Your task to perform on an android device: change notifications settings Image 0: 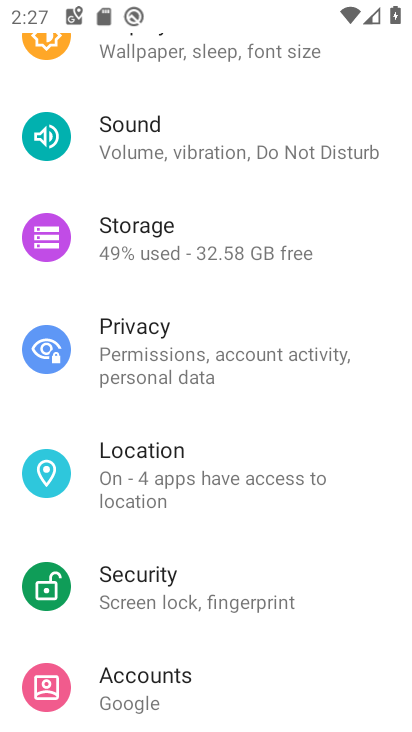
Step 0: drag from (376, 602) to (122, 123)
Your task to perform on an android device: change notifications settings Image 1: 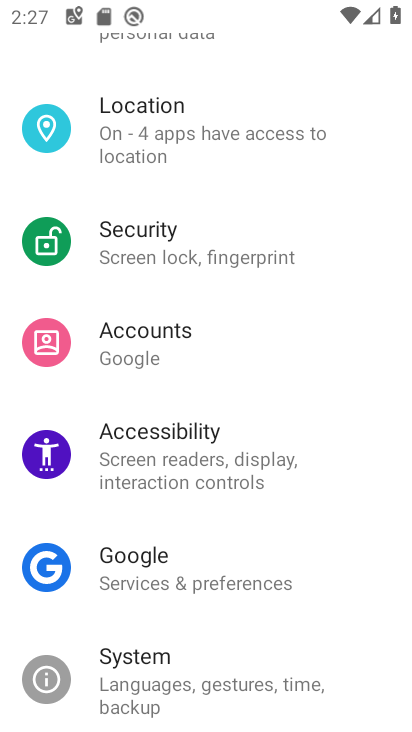
Step 1: drag from (163, 216) to (110, 579)
Your task to perform on an android device: change notifications settings Image 2: 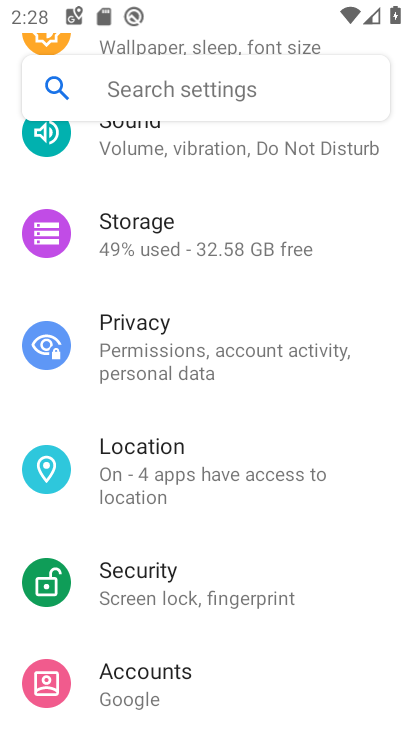
Step 2: drag from (156, 252) to (168, 598)
Your task to perform on an android device: change notifications settings Image 3: 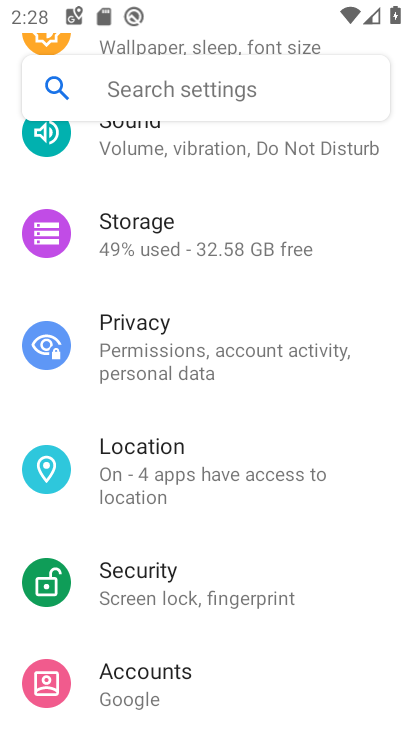
Step 3: drag from (181, 260) to (132, 578)
Your task to perform on an android device: change notifications settings Image 4: 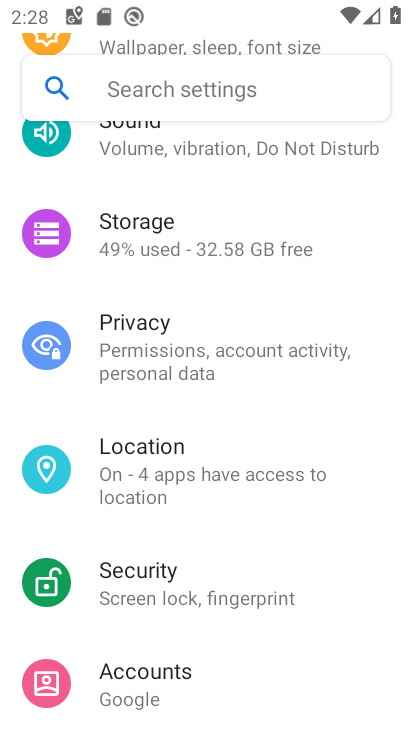
Step 4: drag from (216, 270) to (214, 529)
Your task to perform on an android device: change notifications settings Image 5: 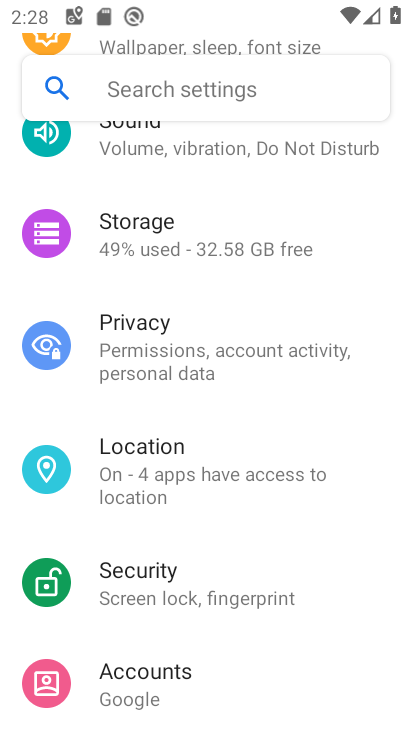
Step 5: drag from (152, 238) to (157, 694)
Your task to perform on an android device: change notifications settings Image 6: 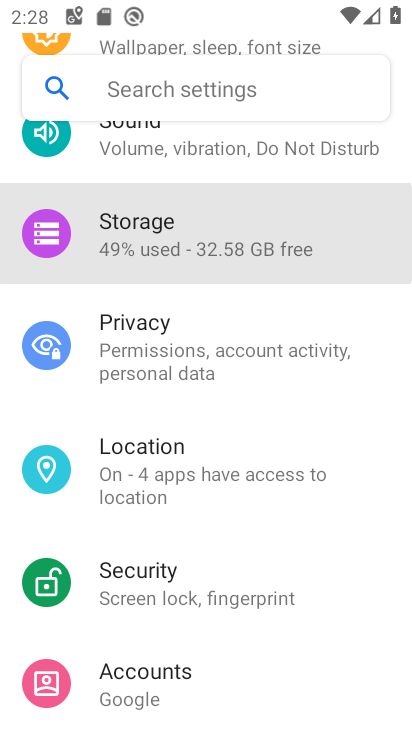
Step 6: drag from (190, 343) to (205, 727)
Your task to perform on an android device: change notifications settings Image 7: 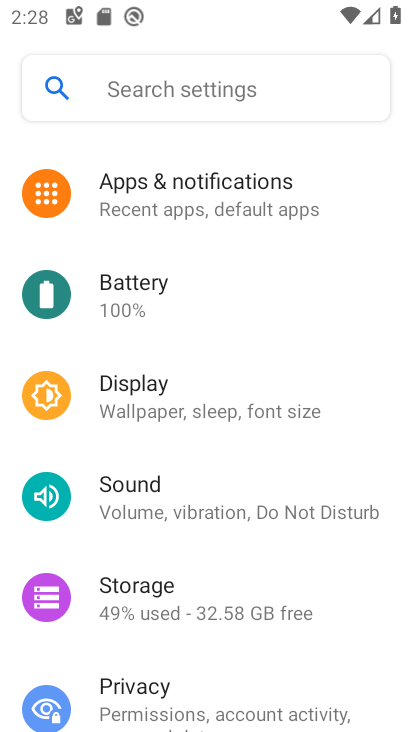
Step 7: drag from (202, 386) to (219, 657)
Your task to perform on an android device: change notifications settings Image 8: 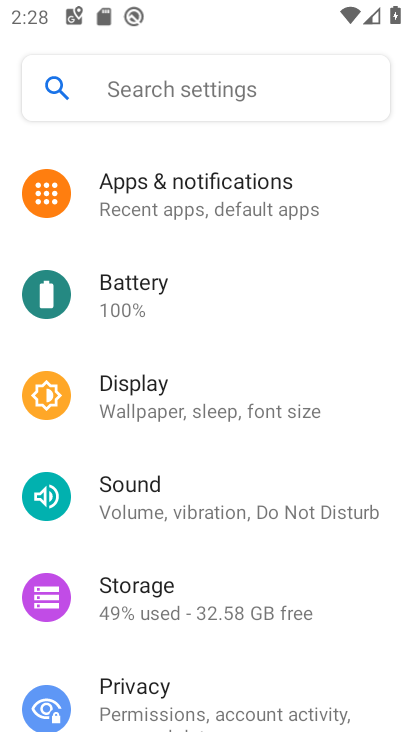
Step 8: drag from (209, 287) to (187, 567)
Your task to perform on an android device: change notifications settings Image 9: 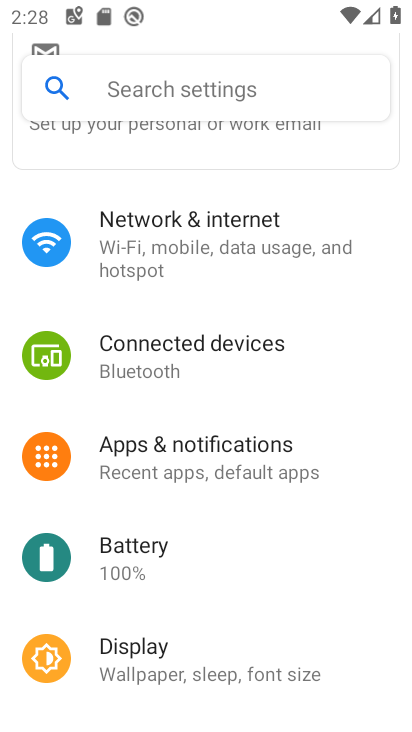
Step 9: drag from (178, 454) to (173, 489)
Your task to perform on an android device: change notifications settings Image 10: 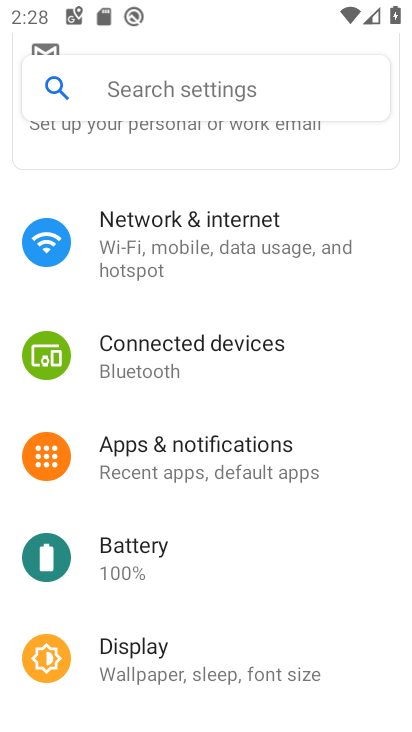
Step 10: click (173, 456)
Your task to perform on an android device: change notifications settings Image 11: 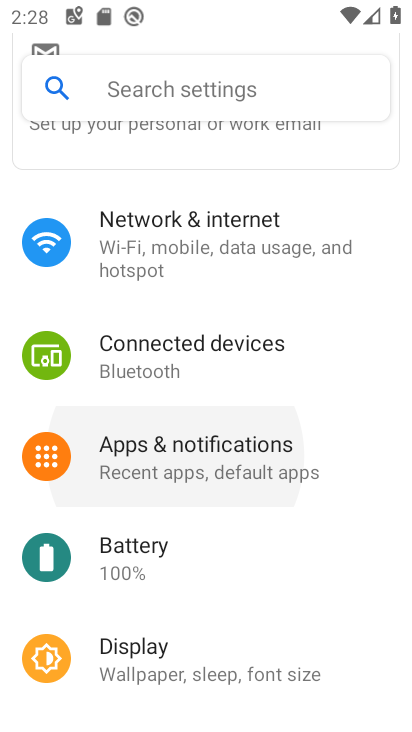
Step 11: click (176, 456)
Your task to perform on an android device: change notifications settings Image 12: 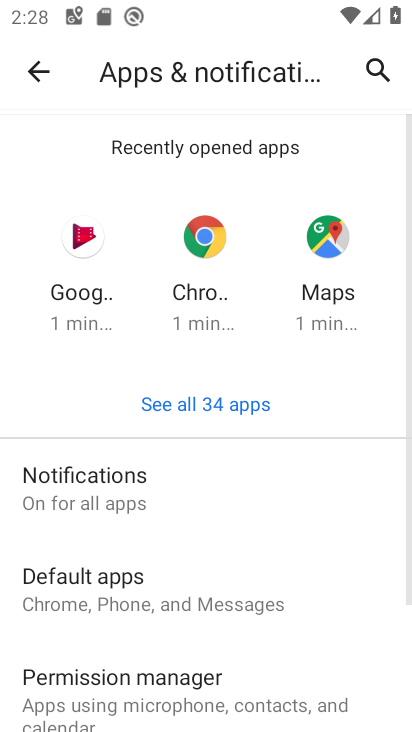
Step 12: click (163, 466)
Your task to perform on an android device: change notifications settings Image 13: 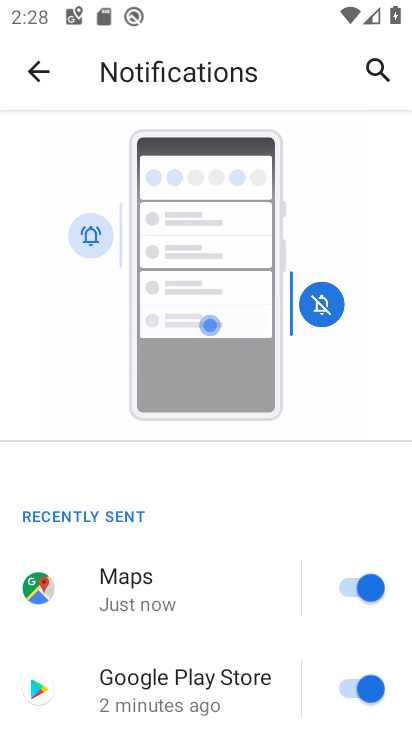
Step 13: drag from (172, 628) to (205, 185)
Your task to perform on an android device: change notifications settings Image 14: 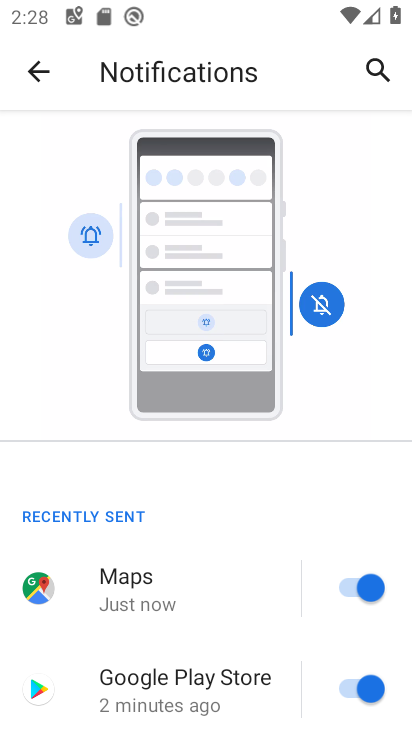
Step 14: drag from (183, 543) to (258, 152)
Your task to perform on an android device: change notifications settings Image 15: 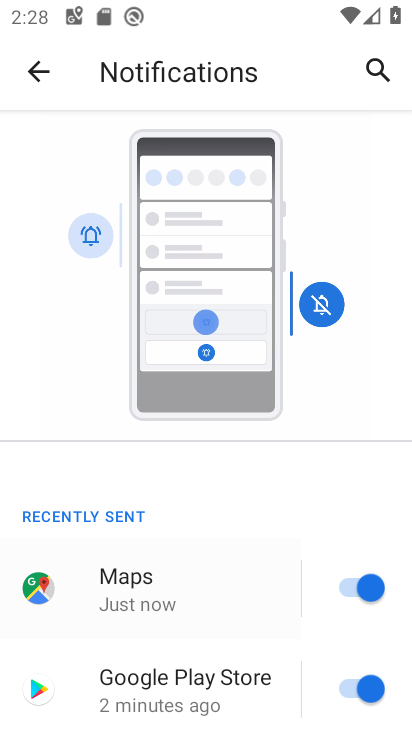
Step 15: drag from (230, 525) to (241, 73)
Your task to perform on an android device: change notifications settings Image 16: 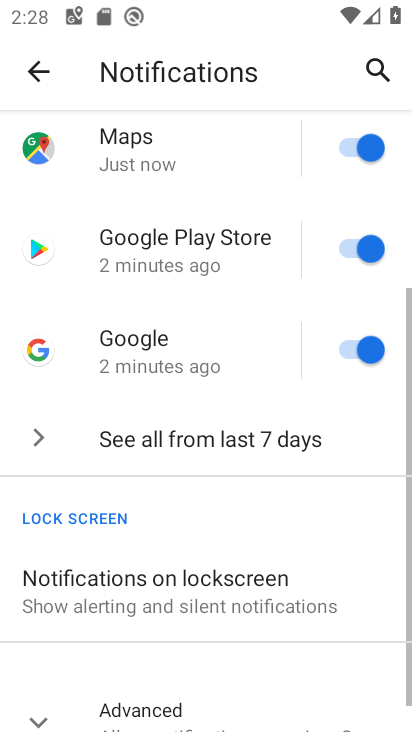
Step 16: drag from (173, 531) to (326, 38)
Your task to perform on an android device: change notifications settings Image 17: 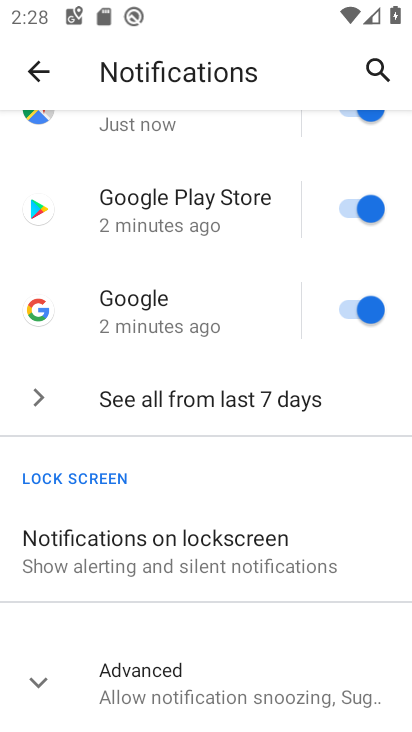
Step 17: drag from (200, 595) to (210, 199)
Your task to perform on an android device: change notifications settings Image 18: 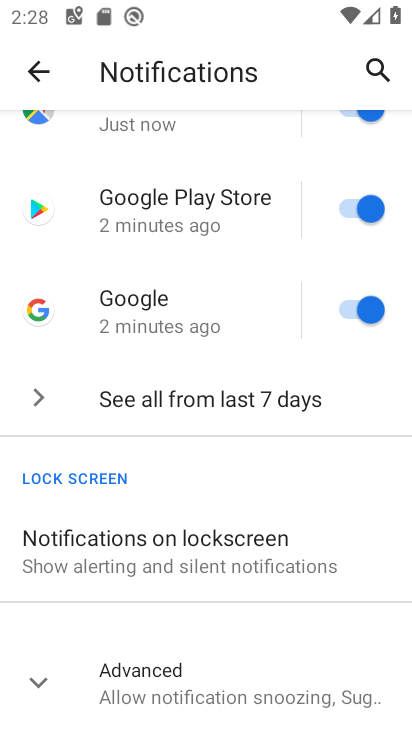
Step 18: drag from (112, 608) to (128, 16)
Your task to perform on an android device: change notifications settings Image 19: 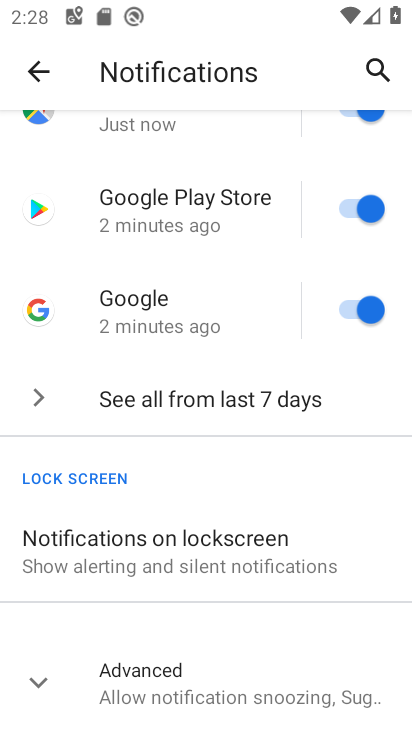
Step 19: click (141, 697)
Your task to perform on an android device: change notifications settings Image 20: 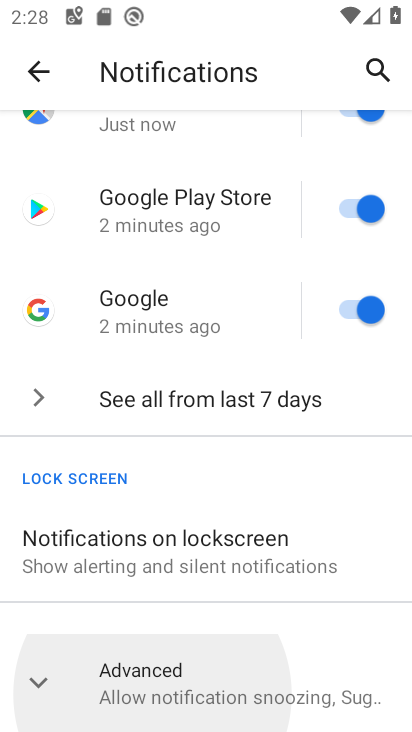
Step 20: click (132, 697)
Your task to perform on an android device: change notifications settings Image 21: 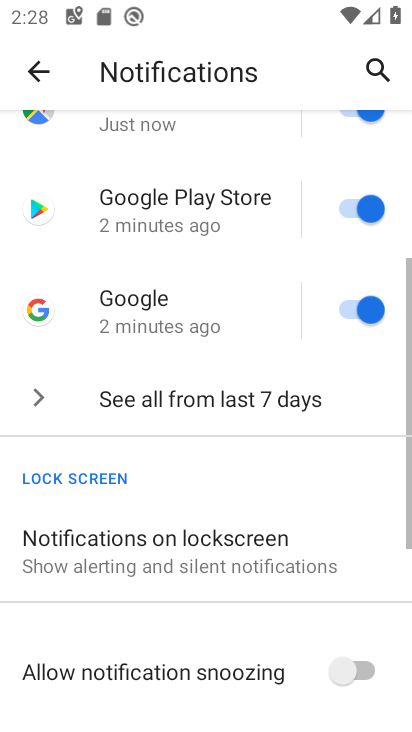
Step 21: drag from (168, 632) to (214, 184)
Your task to perform on an android device: change notifications settings Image 22: 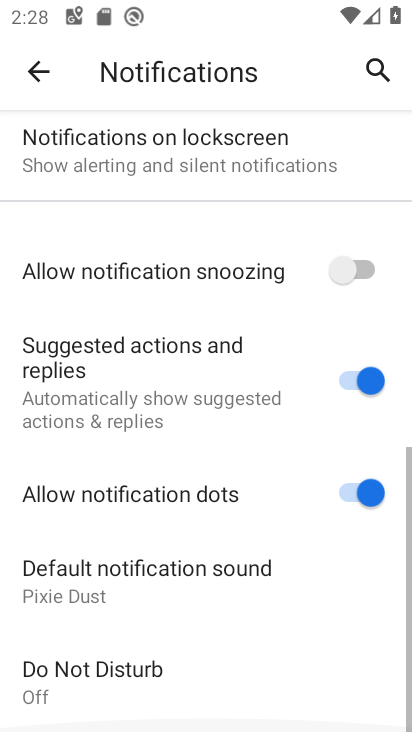
Step 22: drag from (216, 563) to (253, 129)
Your task to perform on an android device: change notifications settings Image 23: 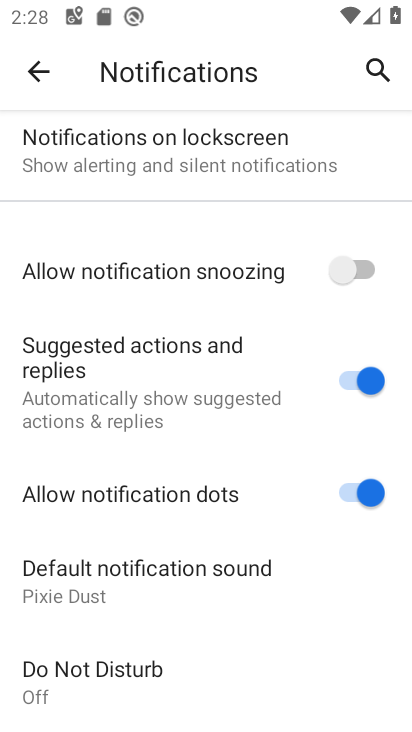
Step 23: click (370, 485)
Your task to perform on an android device: change notifications settings Image 24: 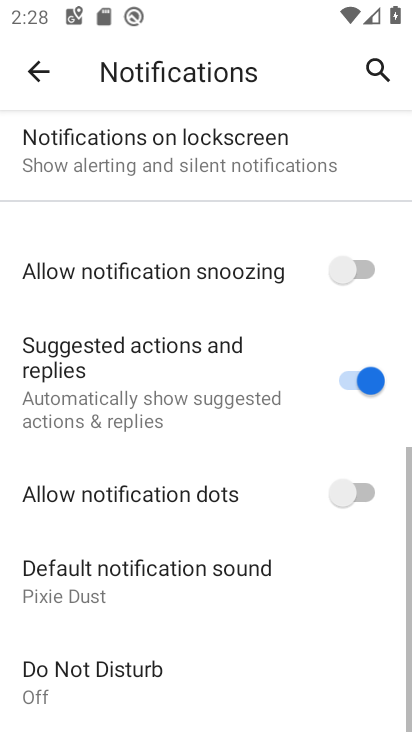
Step 24: click (340, 270)
Your task to perform on an android device: change notifications settings Image 25: 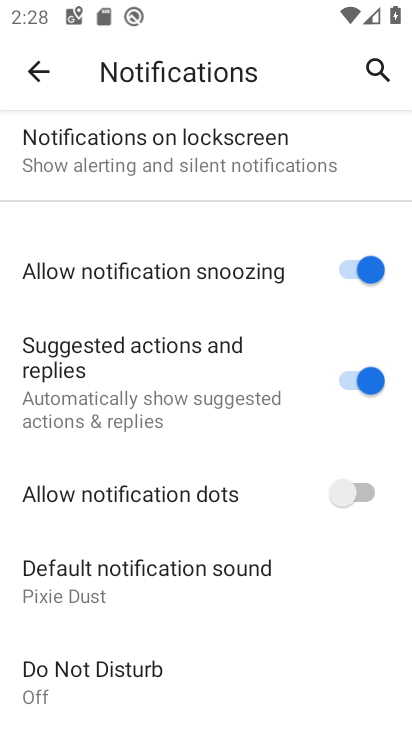
Step 25: task complete